Your task to perform on an android device: Open Chrome and go to the settings page Image 0: 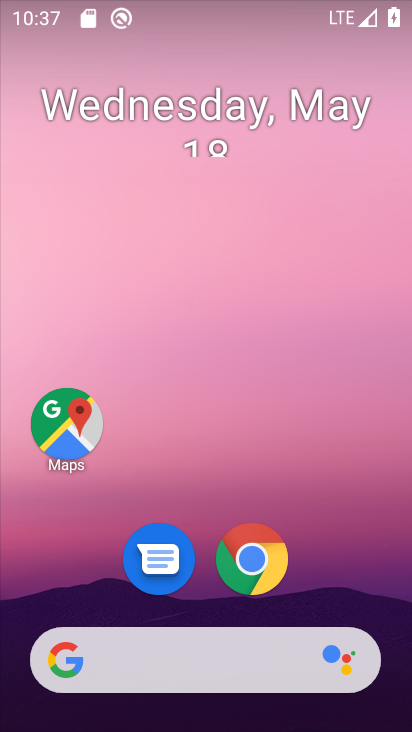
Step 0: click (273, 558)
Your task to perform on an android device: Open Chrome and go to the settings page Image 1: 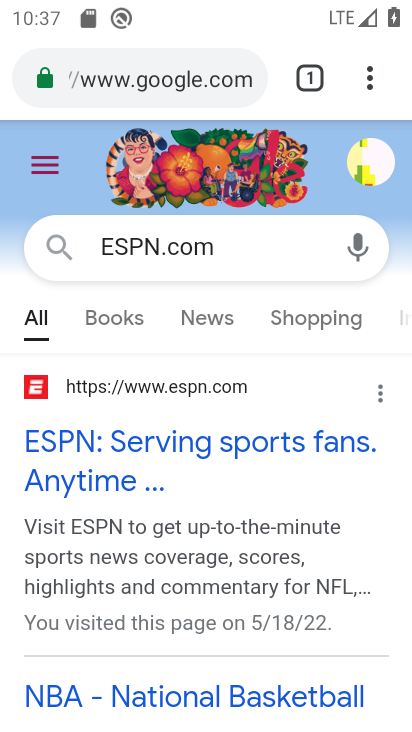
Step 1: click (380, 82)
Your task to perform on an android device: Open Chrome and go to the settings page Image 2: 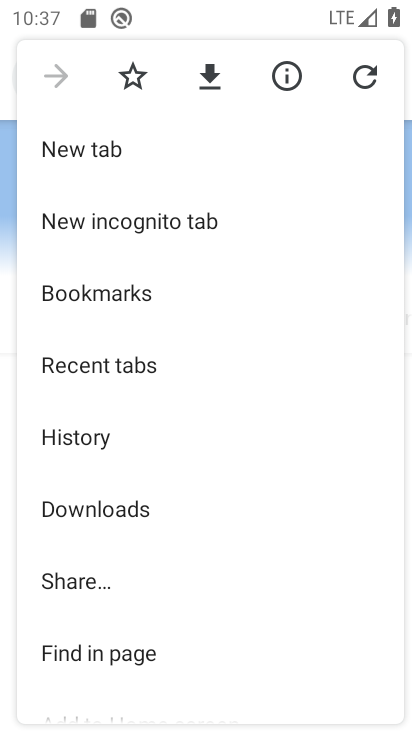
Step 2: drag from (83, 541) to (145, 245)
Your task to perform on an android device: Open Chrome and go to the settings page Image 3: 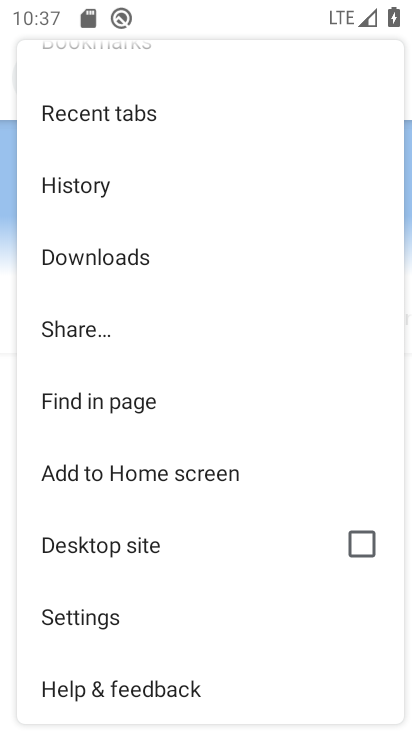
Step 3: click (104, 616)
Your task to perform on an android device: Open Chrome and go to the settings page Image 4: 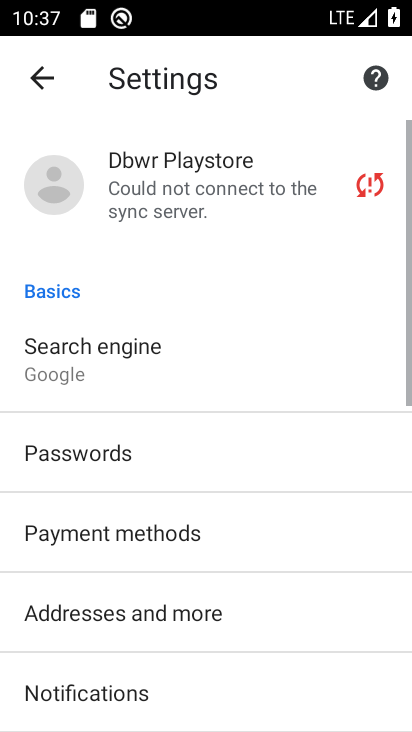
Step 4: task complete